Your task to perform on an android device: clear history in the chrome app Image 0: 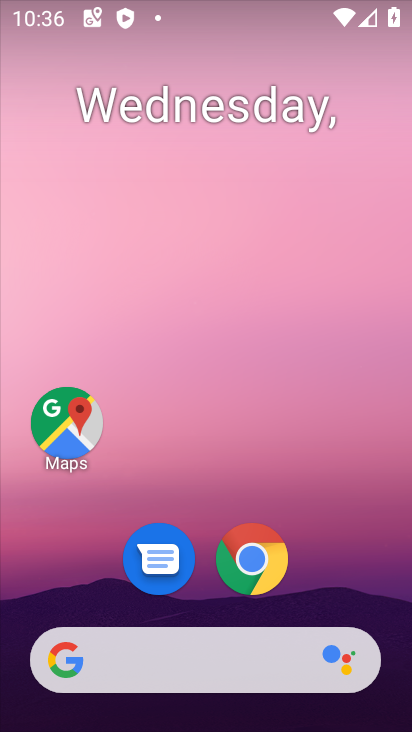
Step 0: click (252, 558)
Your task to perform on an android device: clear history in the chrome app Image 1: 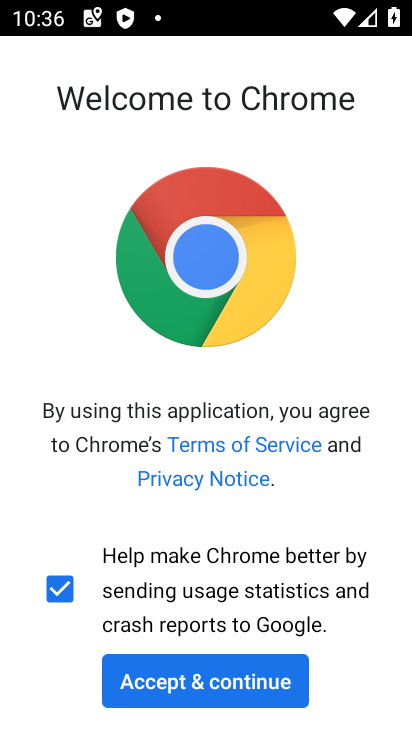
Step 1: click (215, 677)
Your task to perform on an android device: clear history in the chrome app Image 2: 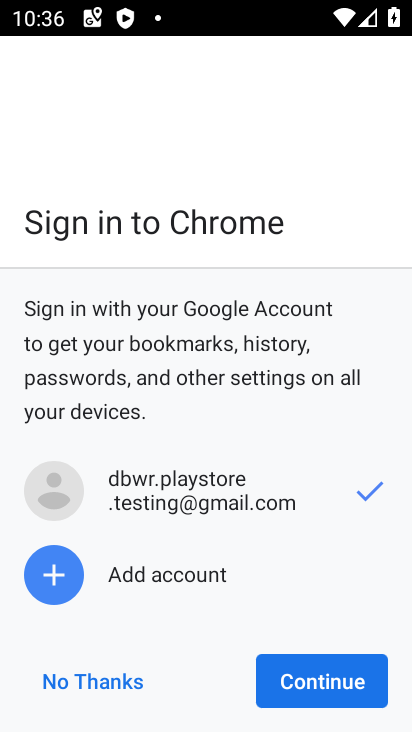
Step 2: click (324, 682)
Your task to perform on an android device: clear history in the chrome app Image 3: 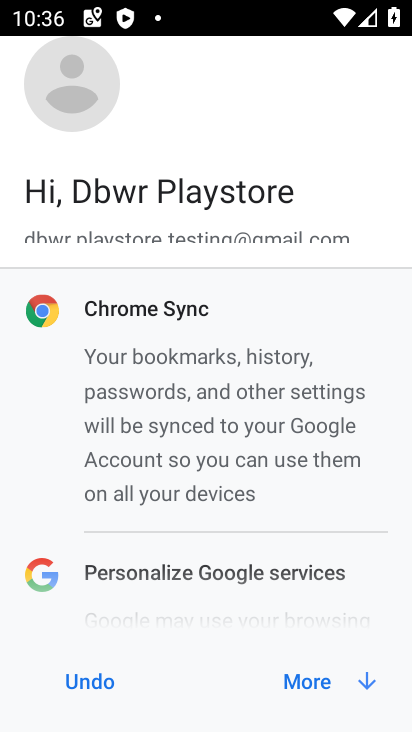
Step 3: click (315, 682)
Your task to perform on an android device: clear history in the chrome app Image 4: 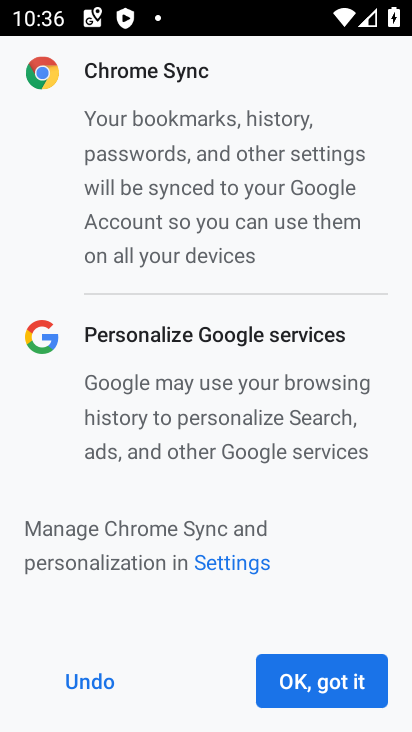
Step 4: click (315, 682)
Your task to perform on an android device: clear history in the chrome app Image 5: 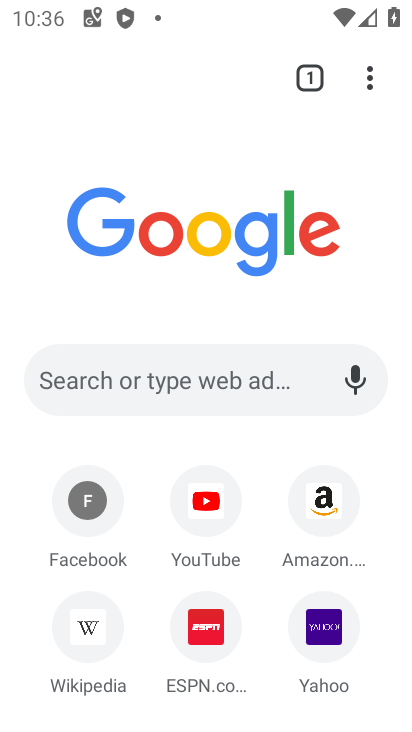
Step 5: click (371, 80)
Your task to perform on an android device: clear history in the chrome app Image 6: 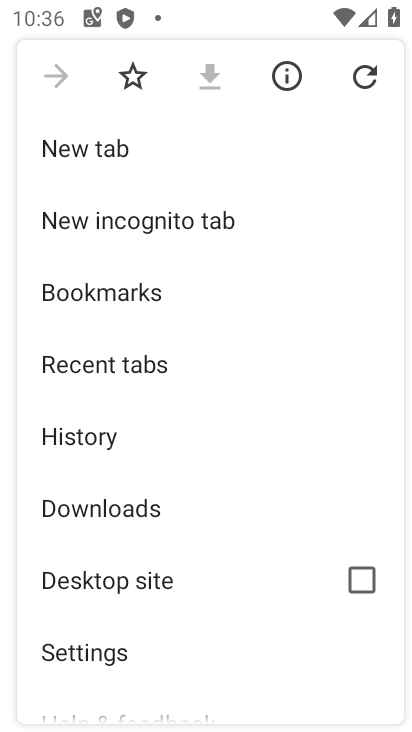
Step 6: click (91, 432)
Your task to perform on an android device: clear history in the chrome app Image 7: 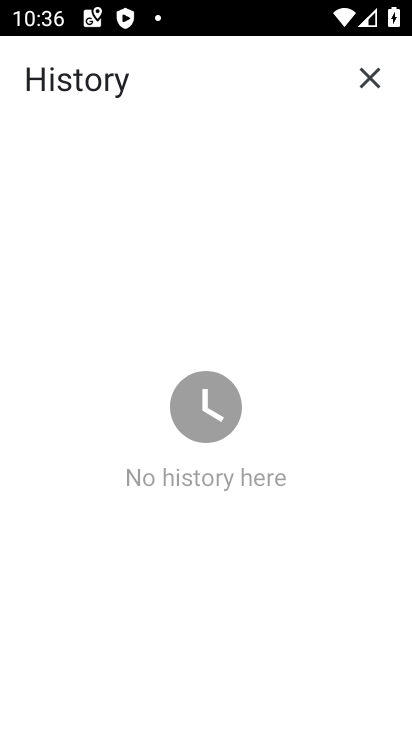
Step 7: task complete